Your task to perform on an android device: turn off sleep mode Image 0: 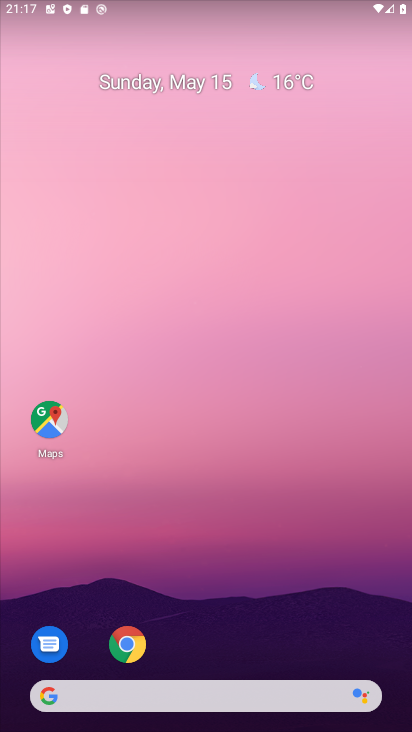
Step 0: drag from (257, 601) to (270, 107)
Your task to perform on an android device: turn off sleep mode Image 1: 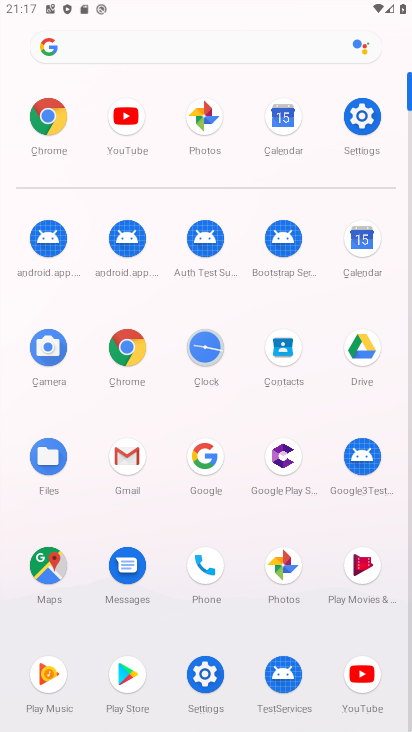
Step 1: click (377, 117)
Your task to perform on an android device: turn off sleep mode Image 2: 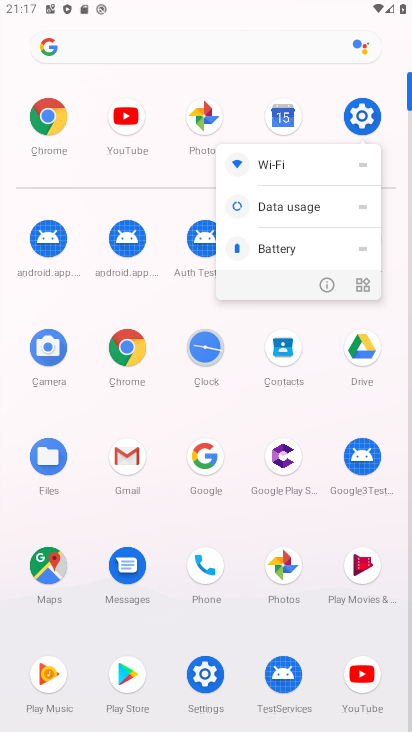
Step 2: click (364, 119)
Your task to perform on an android device: turn off sleep mode Image 3: 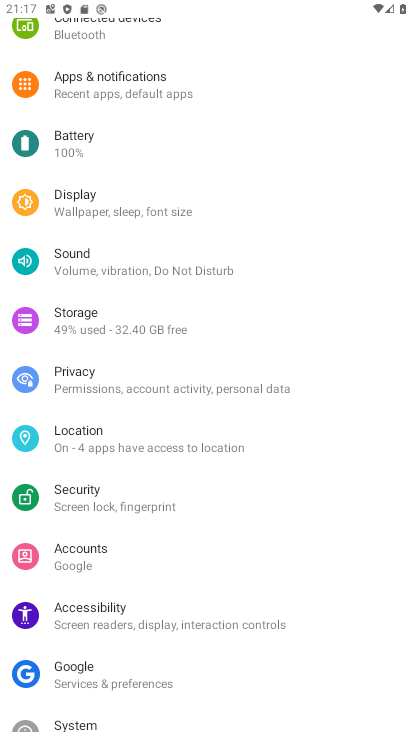
Step 3: drag from (315, 106) to (166, 627)
Your task to perform on an android device: turn off sleep mode Image 4: 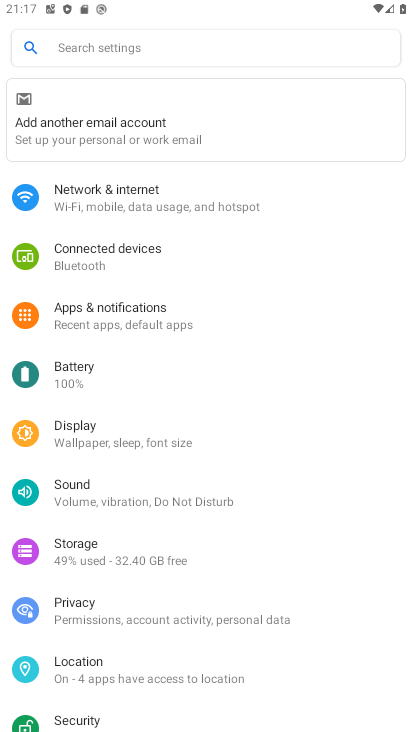
Step 4: click (121, 54)
Your task to perform on an android device: turn off sleep mode Image 5: 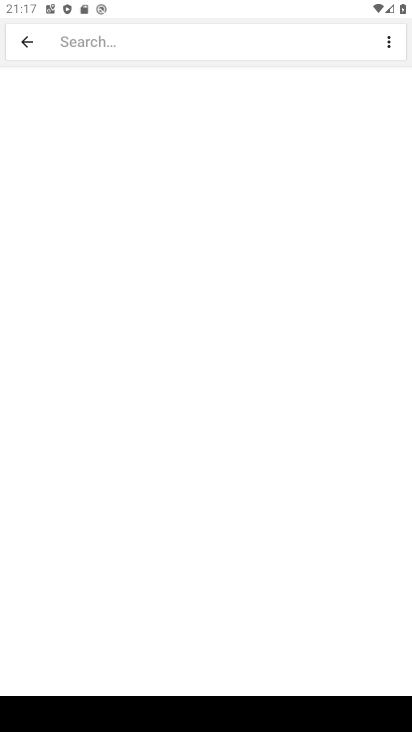
Step 5: type "sleep mode"
Your task to perform on an android device: turn off sleep mode Image 6: 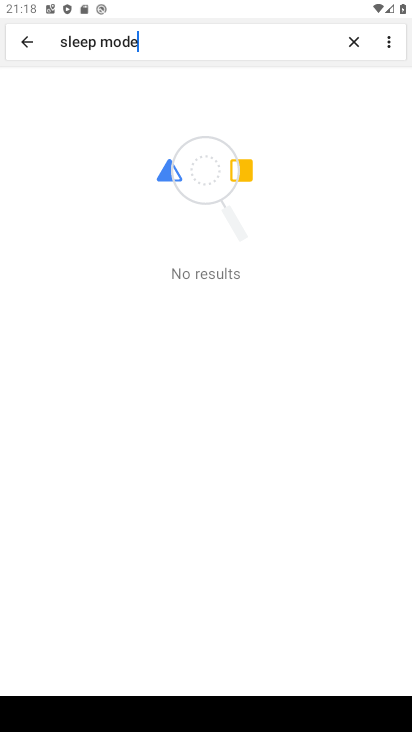
Step 6: task complete